Your task to perform on an android device: open chrome privacy settings Image 0: 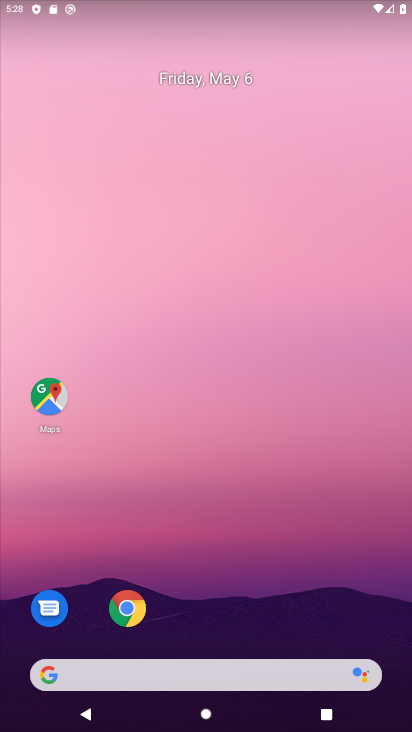
Step 0: click (129, 586)
Your task to perform on an android device: open chrome privacy settings Image 1: 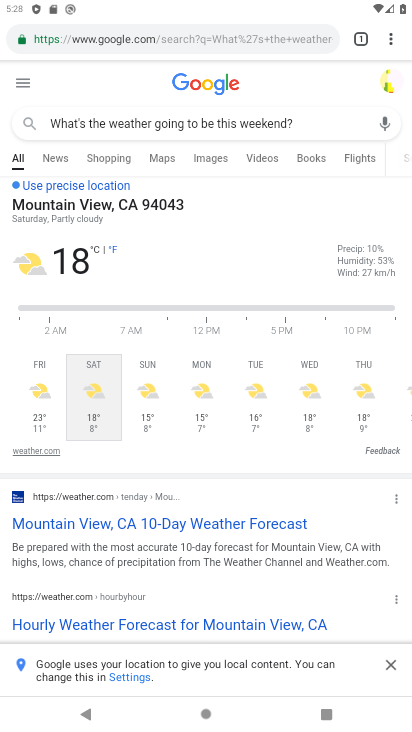
Step 1: click (387, 47)
Your task to perform on an android device: open chrome privacy settings Image 2: 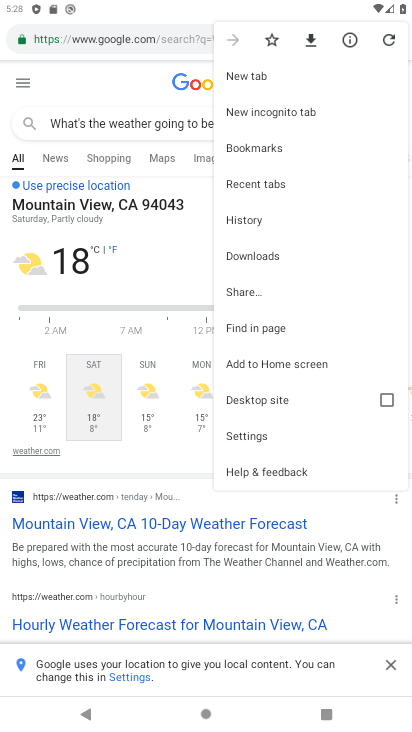
Step 2: click (259, 427)
Your task to perform on an android device: open chrome privacy settings Image 3: 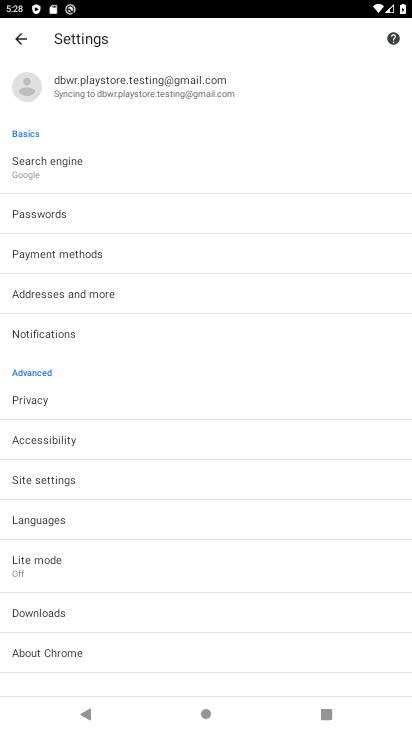
Step 3: click (107, 400)
Your task to perform on an android device: open chrome privacy settings Image 4: 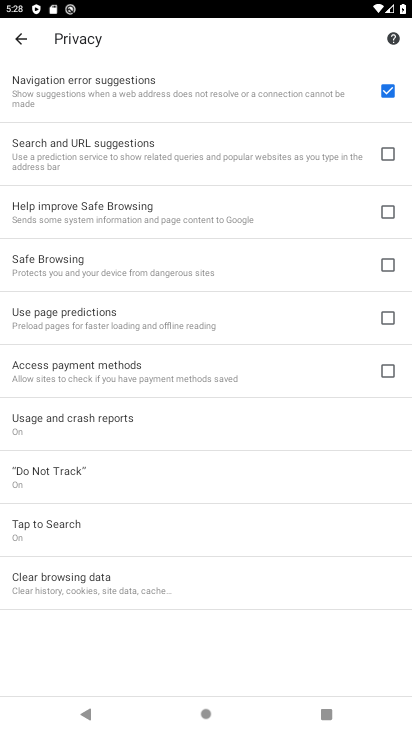
Step 4: task complete